Your task to perform on an android device: Open ESPN.com Image 0: 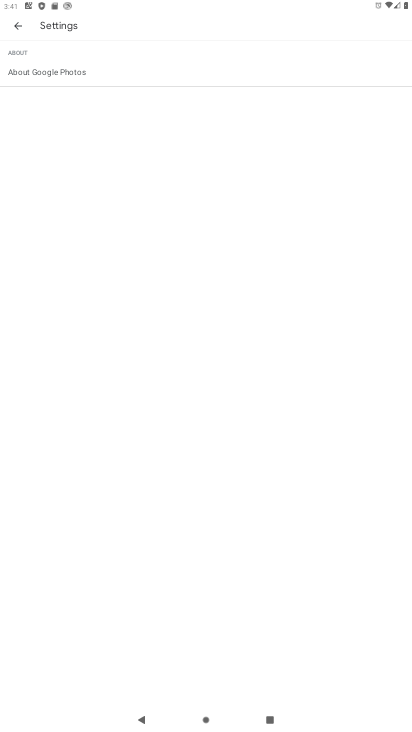
Step 0: press home button
Your task to perform on an android device: Open ESPN.com Image 1: 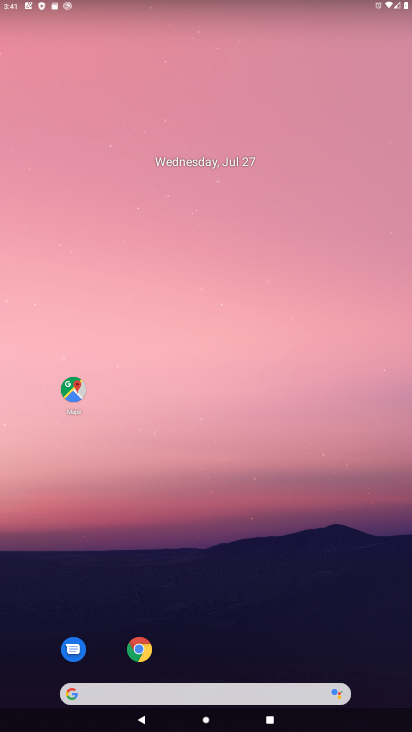
Step 1: click (138, 652)
Your task to perform on an android device: Open ESPN.com Image 2: 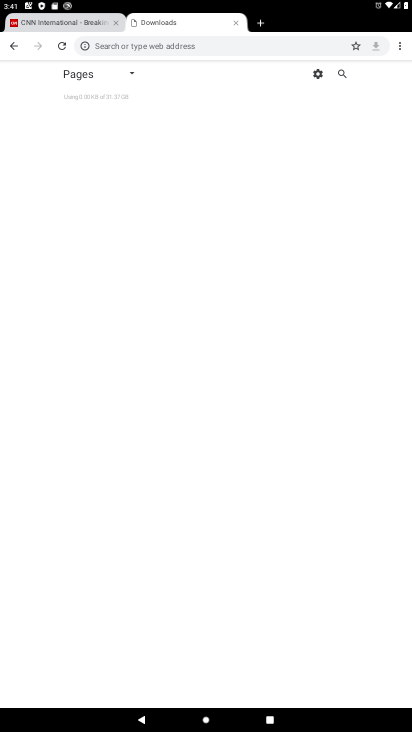
Step 2: click (142, 44)
Your task to perform on an android device: Open ESPN.com Image 3: 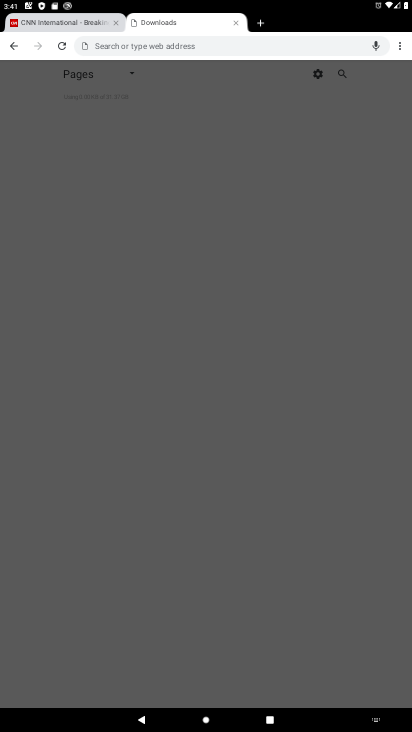
Step 3: type "ESPn.com"
Your task to perform on an android device: Open ESPN.com Image 4: 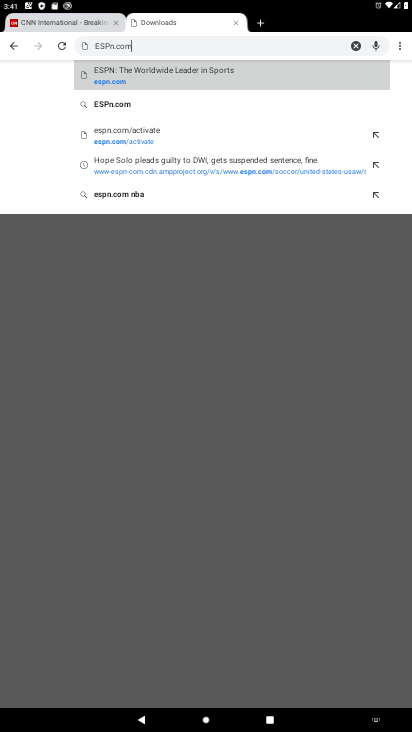
Step 4: click (121, 74)
Your task to perform on an android device: Open ESPN.com Image 5: 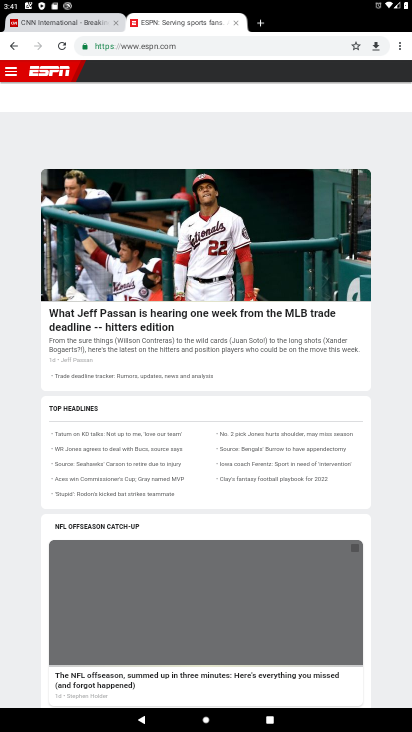
Step 5: task complete